Your task to perform on an android device: Go to eBay Image 0: 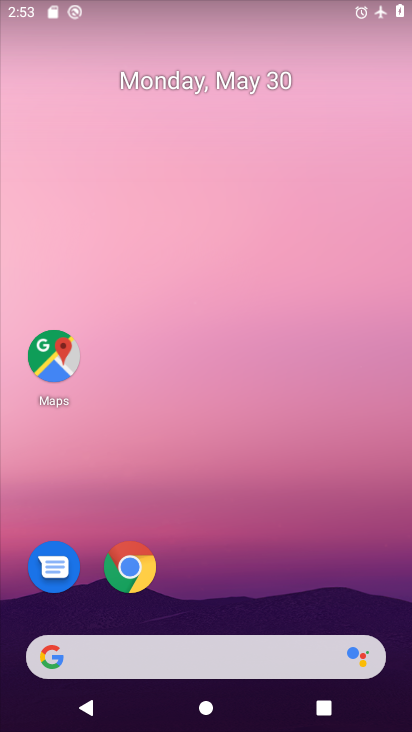
Step 0: click (133, 566)
Your task to perform on an android device: Go to eBay Image 1: 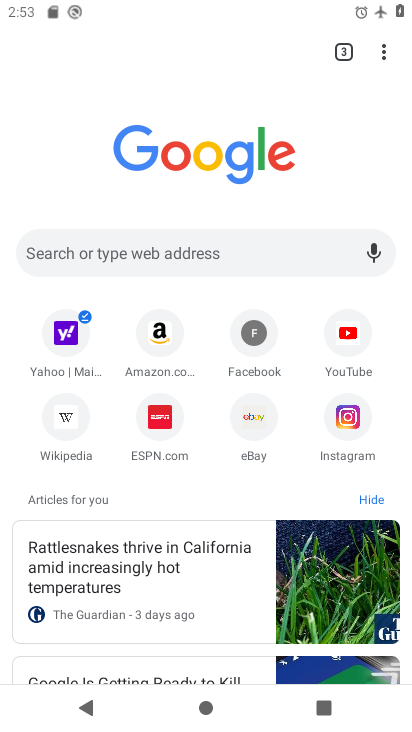
Step 1: click (265, 432)
Your task to perform on an android device: Go to eBay Image 2: 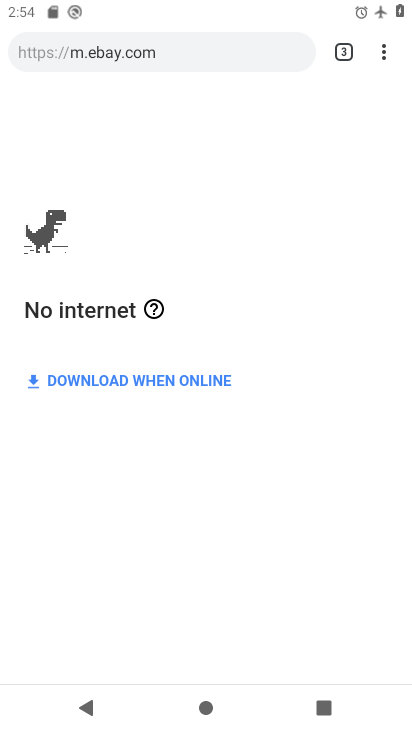
Step 2: drag from (236, 8) to (252, 409)
Your task to perform on an android device: Go to eBay Image 3: 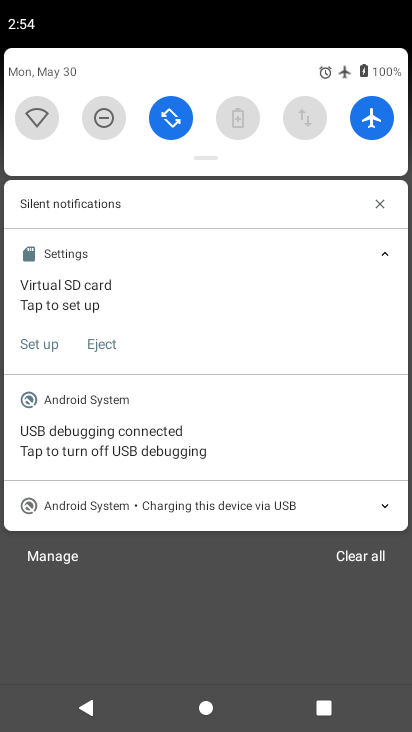
Step 3: click (362, 120)
Your task to perform on an android device: Go to eBay Image 4: 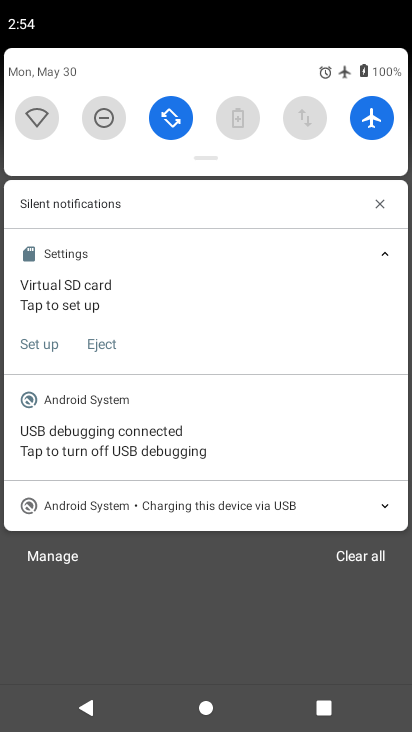
Step 4: drag from (350, 138) to (293, 136)
Your task to perform on an android device: Go to eBay Image 5: 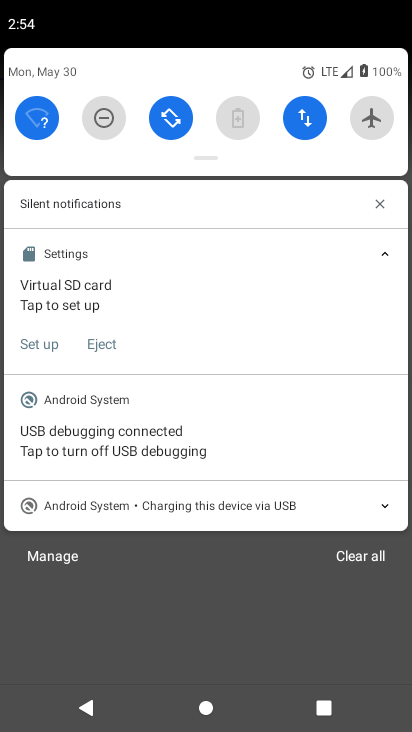
Step 5: click (209, 595)
Your task to perform on an android device: Go to eBay Image 6: 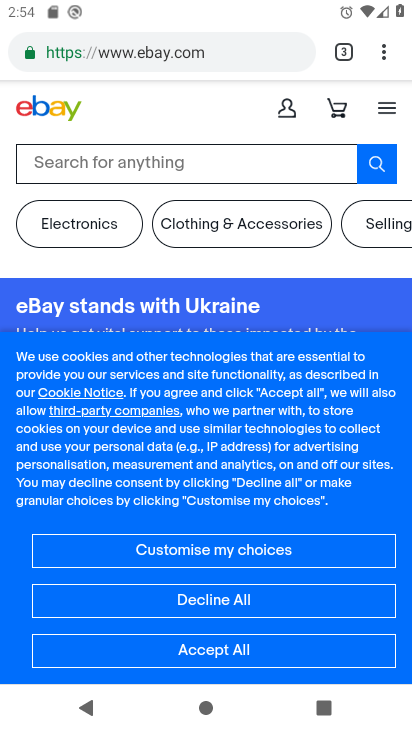
Step 6: task complete